Your task to perform on an android device: toggle sleep mode Image 0: 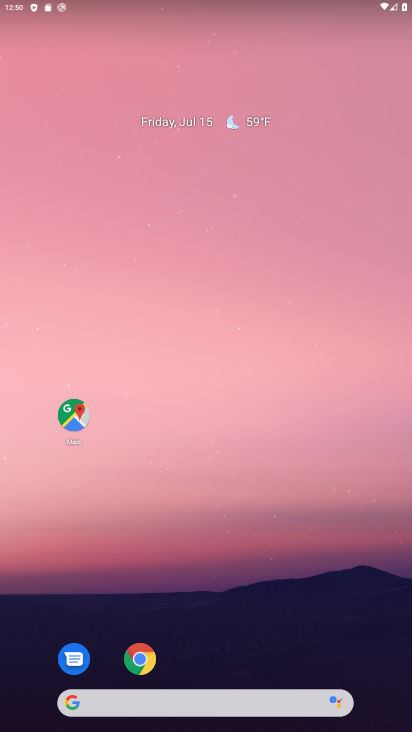
Step 0: drag from (254, 666) to (294, 168)
Your task to perform on an android device: toggle sleep mode Image 1: 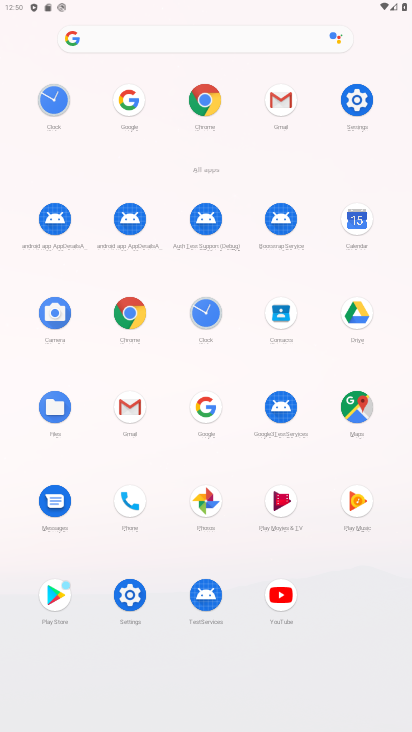
Step 1: click (354, 100)
Your task to perform on an android device: toggle sleep mode Image 2: 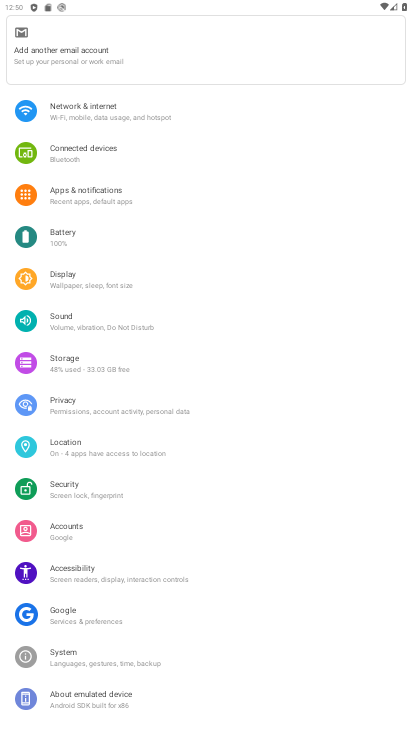
Step 2: click (97, 278)
Your task to perform on an android device: toggle sleep mode Image 3: 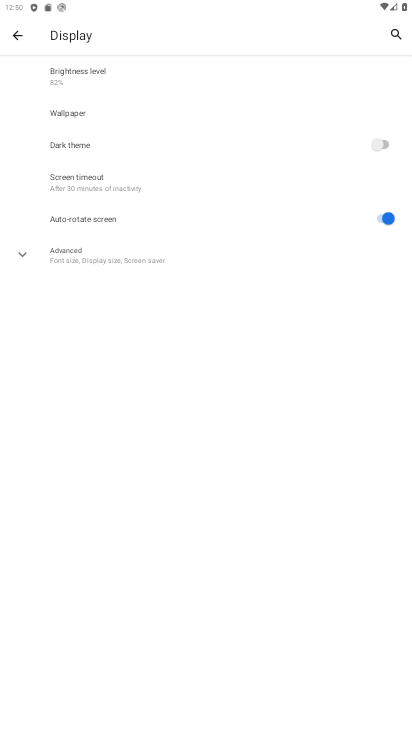
Step 3: click (119, 185)
Your task to perform on an android device: toggle sleep mode Image 4: 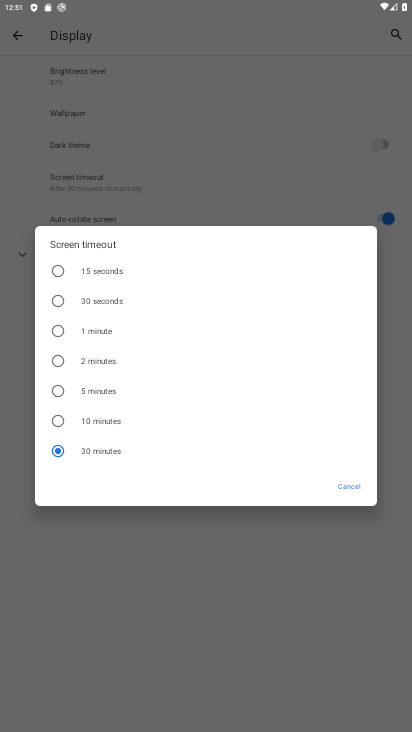
Step 4: click (62, 301)
Your task to perform on an android device: toggle sleep mode Image 5: 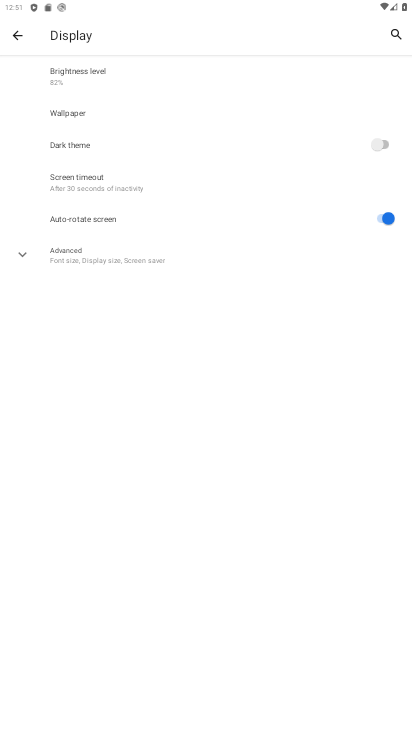
Step 5: task complete